Your task to perform on an android device: Open the calendar app, open the side menu, and click the "Day" option Image 0: 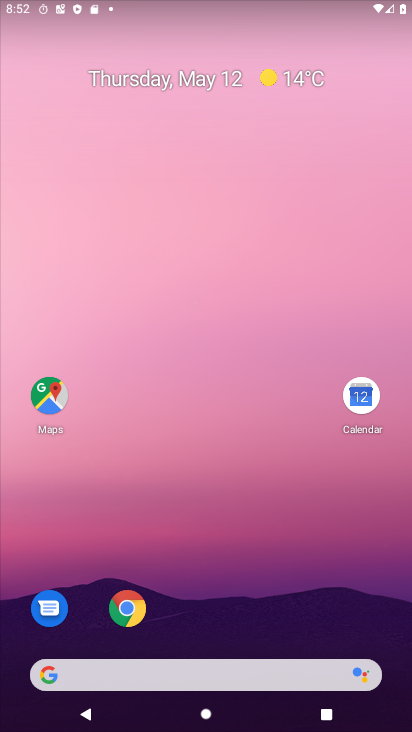
Step 0: drag from (213, 625) to (261, 333)
Your task to perform on an android device: Open the calendar app, open the side menu, and click the "Day" option Image 1: 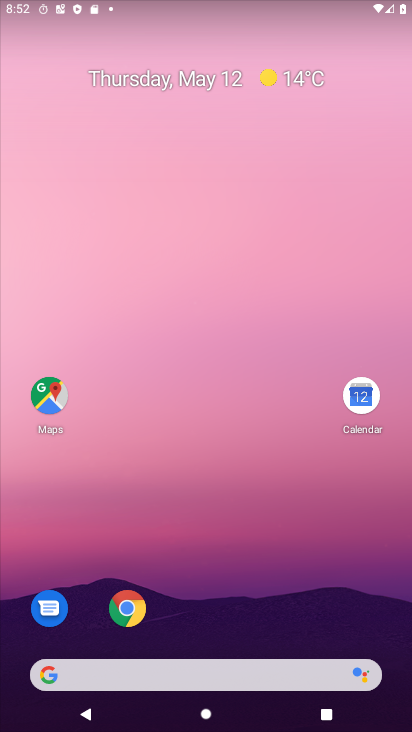
Step 1: drag from (310, 556) to (367, 176)
Your task to perform on an android device: Open the calendar app, open the side menu, and click the "Day" option Image 2: 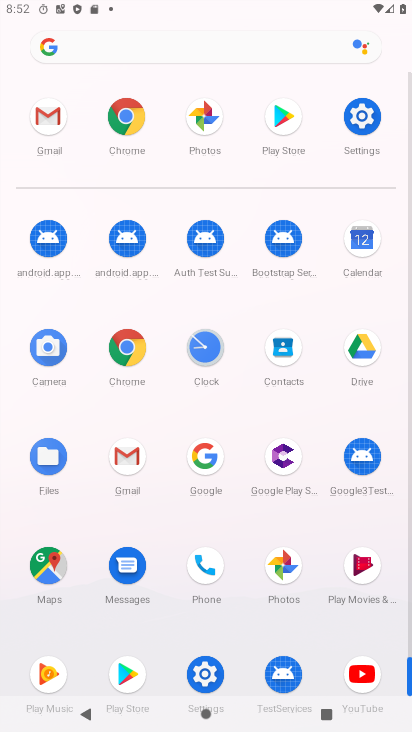
Step 2: click (361, 251)
Your task to perform on an android device: Open the calendar app, open the side menu, and click the "Day" option Image 3: 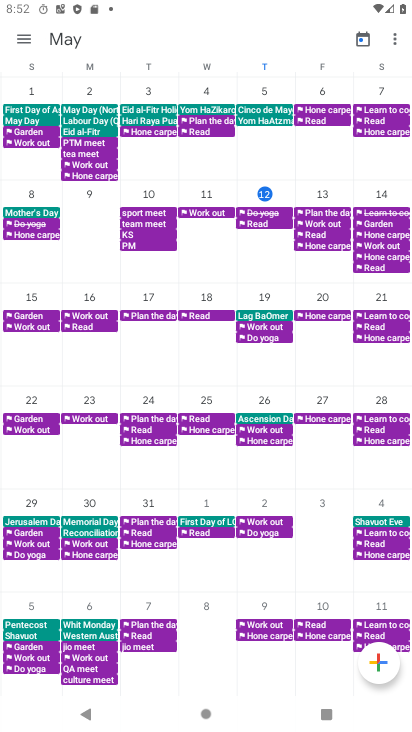
Step 3: click (390, 35)
Your task to perform on an android device: Open the calendar app, open the side menu, and click the "Day" option Image 4: 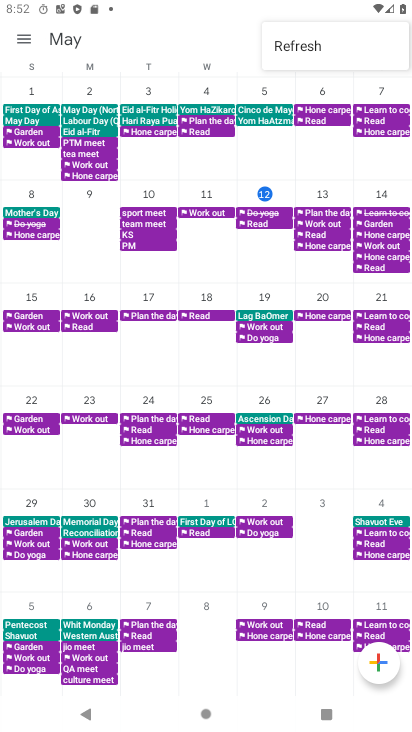
Step 4: click (31, 38)
Your task to perform on an android device: Open the calendar app, open the side menu, and click the "Day" option Image 5: 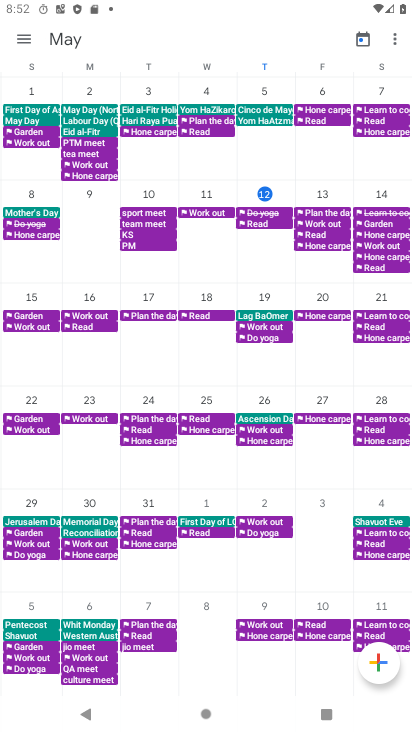
Step 5: click (36, 39)
Your task to perform on an android device: Open the calendar app, open the side menu, and click the "Day" option Image 6: 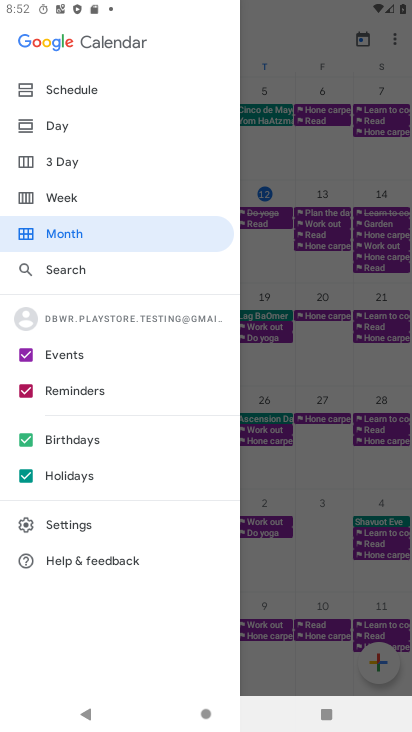
Step 6: click (82, 126)
Your task to perform on an android device: Open the calendar app, open the side menu, and click the "Day" option Image 7: 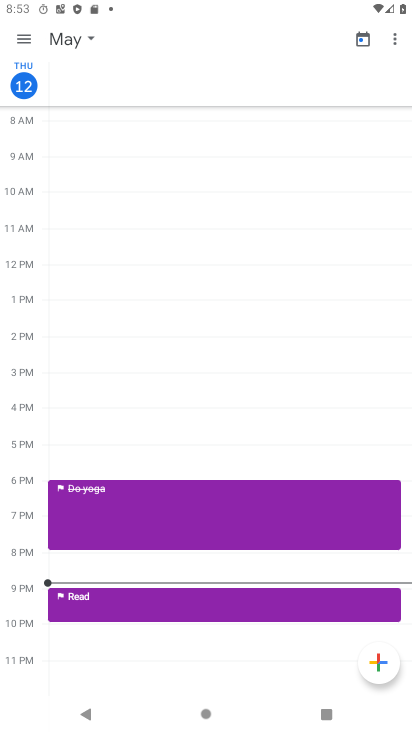
Step 7: task complete